Your task to perform on an android device: Open the stopwatch Image 0: 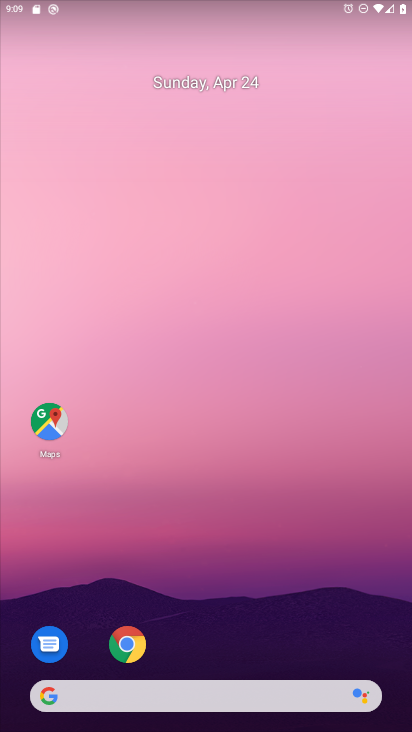
Step 0: drag from (231, 676) to (65, 18)
Your task to perform on an android device: Open the stopwatch Image 1: 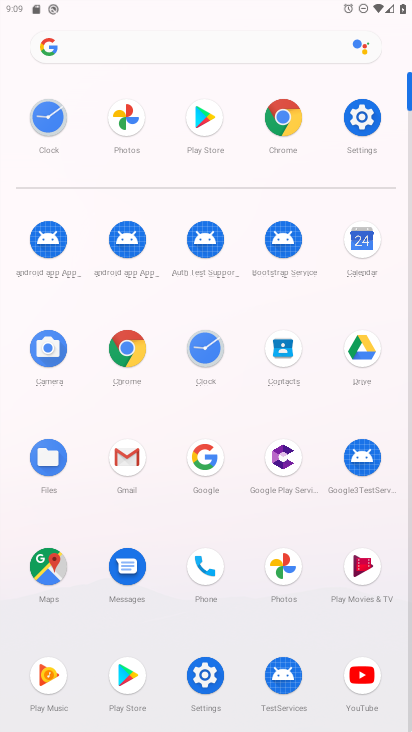
Step 1: click (208, 342)
Your task to perform on an android device: Open the stopwatch Image 2: 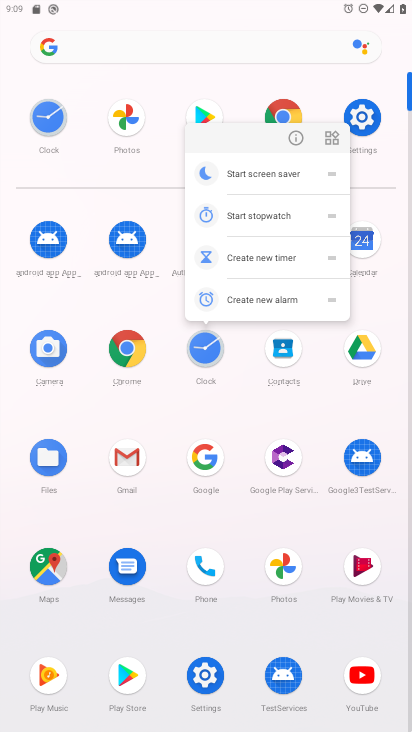
Step 2: click (201, 361)
Your task to perform on an android device: Open the stopwatch Image 3: 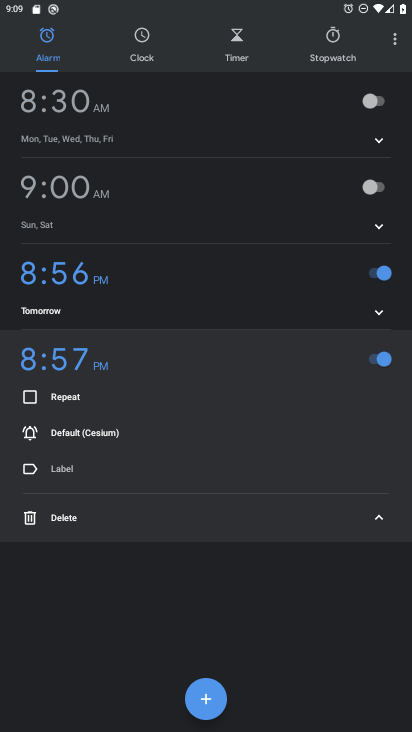
Step 3: click (319, 32)
Your task to perform on an android device: Open the stopwatch Image 4: 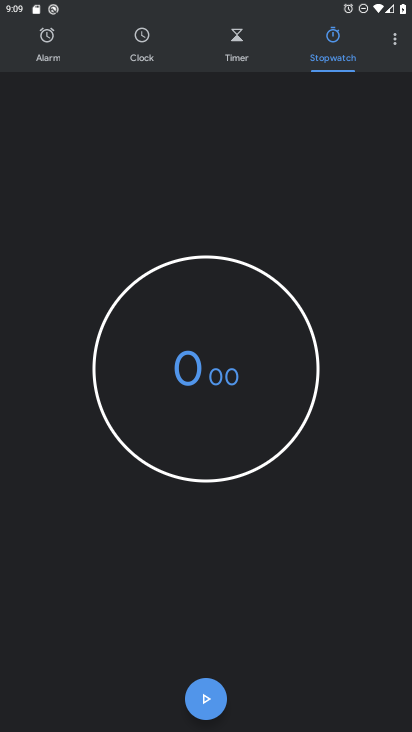
Step 4: task complete